Your task to perform on an android device: Go to calendar. Show me events next week Image 0: 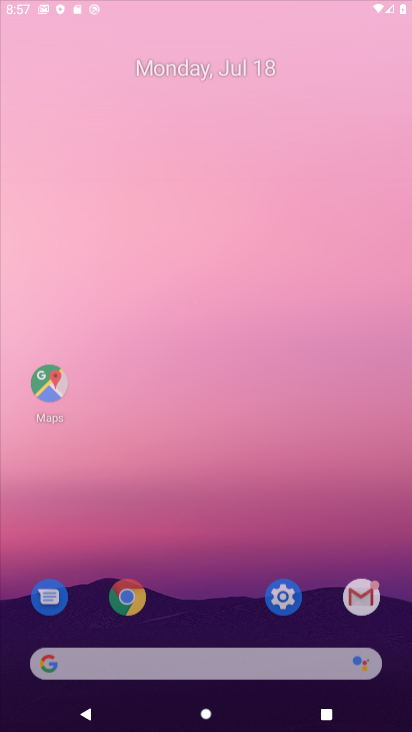
Step 0: press home button
Your task to perform on an android device: Go to calendar. Show me events next week Image 1: 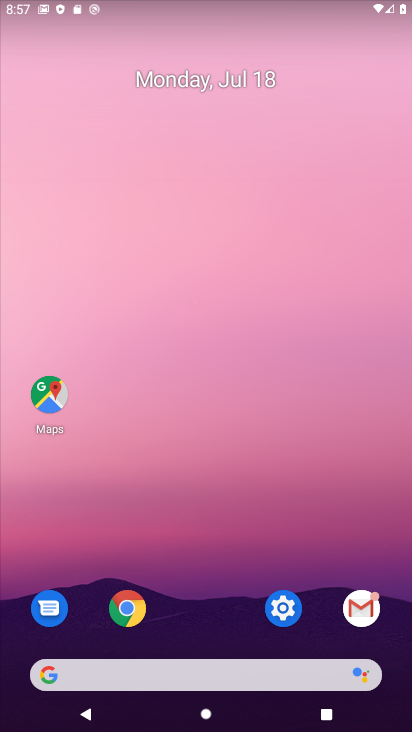
Step 1: drag from (294, 681) to (290, 218)
Your task to perform on an android device: Go to calendar. Show me events next week Image 2: 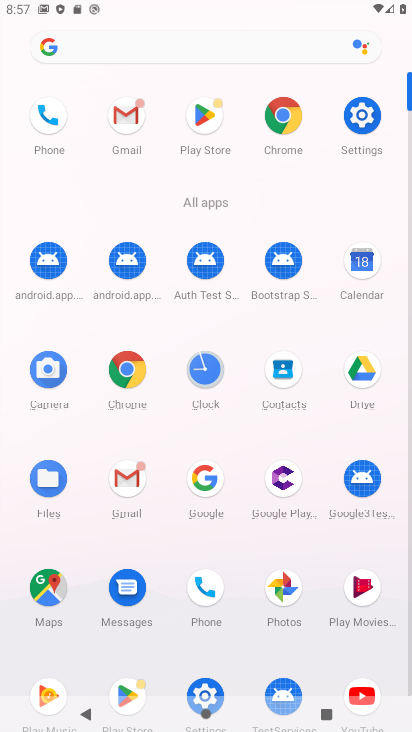
Step 2: click (356, 257)
Your task to perform on an android device: Go to calendar. Show me events next week Image 3: 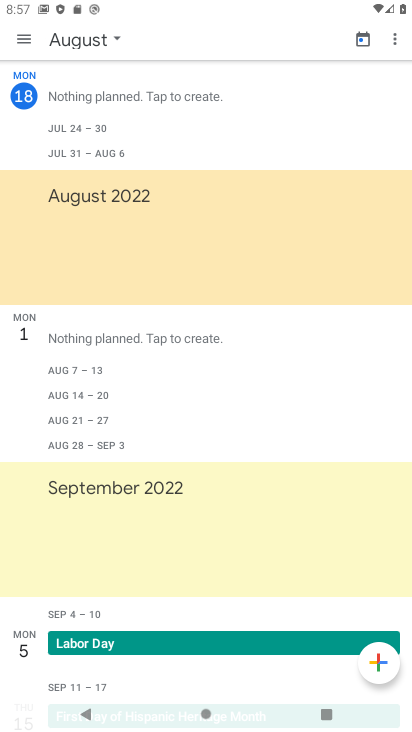
Step 3: click (21, 43)
Your task to perform on an android device: Go to calendar. Show me events next week Image 4: 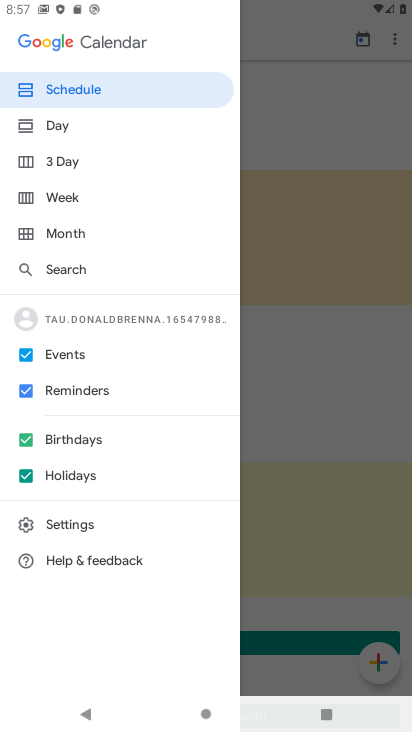
Step 4: click (67, 245)
Your task to perform on an android device: Go to calendar. Show me events next week Image 5: 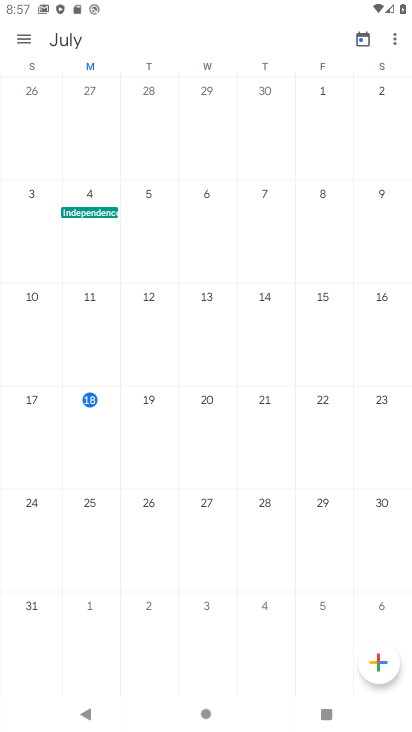
Step 5: drag from (86, 381) to (396, 201)
Your task to perform on an android device: Go to calendar. Show me events next week Image 6: 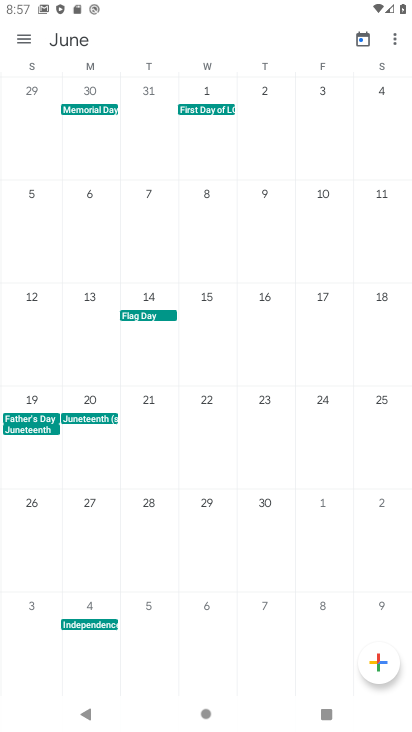
Step 6: drag from (349, 375) to (0, 421)
Your task to perform on an android device: Go to calendar. Show me events next week Image 7: 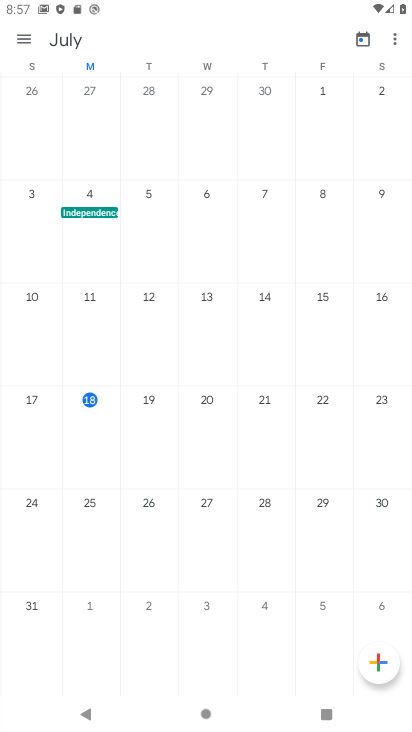
Step 7: click (38, 523)
Your task to perform on an android device: Go to calendar. Show me events next week Image 8: 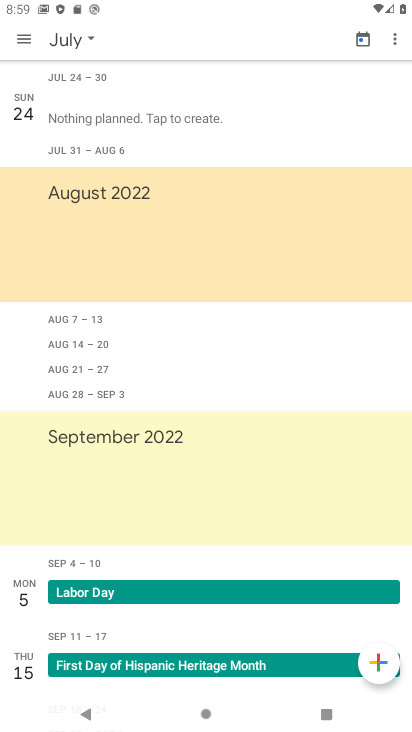
Step 8: task complete